Your task to perform on an android device: turn on notifications settings in the gmail app Image 0: 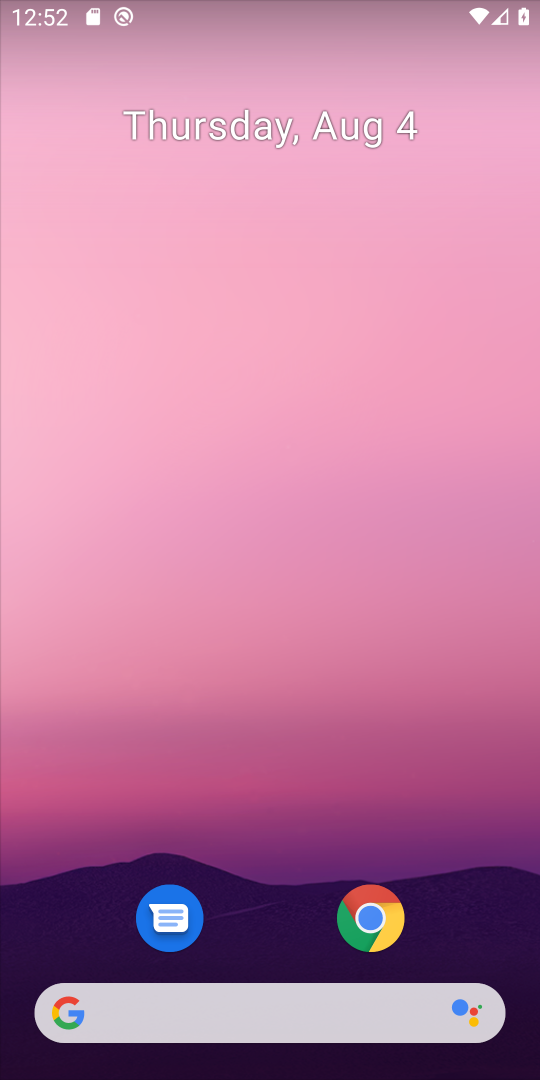
Step 0: drag from (289, 789) to (307, 304)
Your task to perform on an android device: turn on notifications settings in the gmail app Image 1: 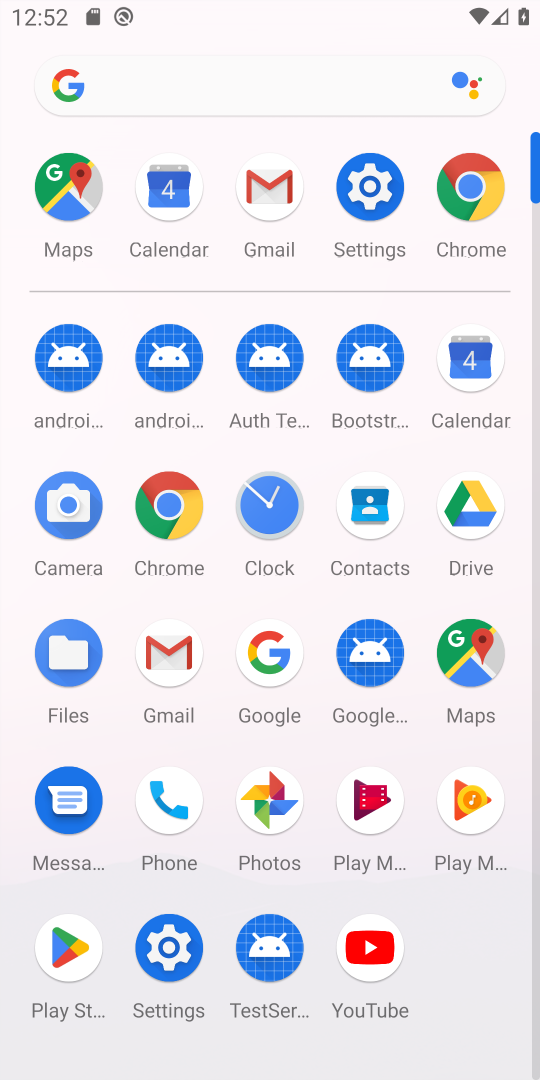
Step 1: click (295, 213)
Your task to perform on an android device: turn on notifications settings in the gmail app Image 2: 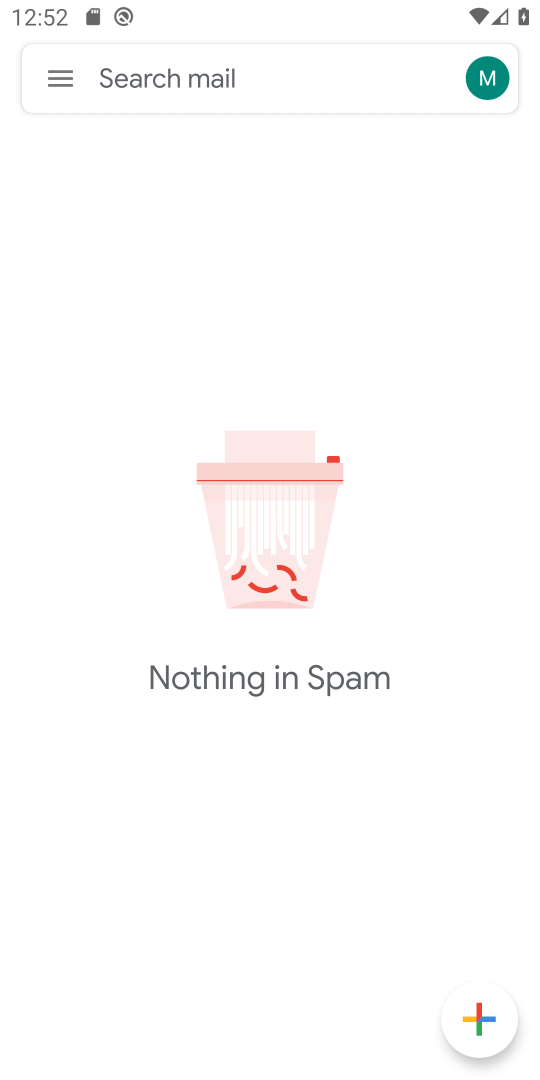
Step 2: click (67, 62)
Your task to perform on an android device: turn on notifications settings in the gmail app Image 3: 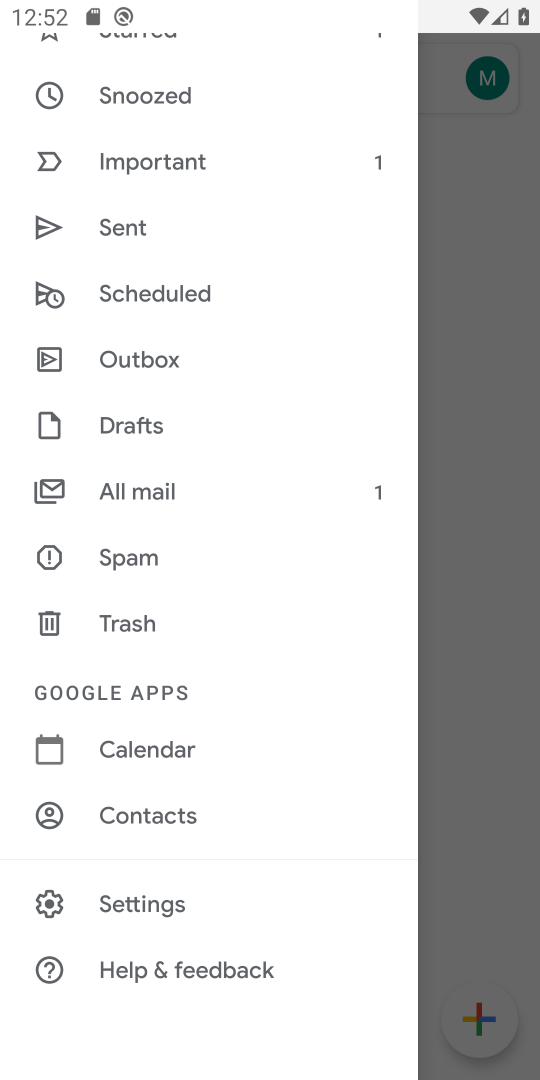
Step 3: click (139, 881)
Your task to perform on an android device: turn on notifications settings in the gmail app Image 4: 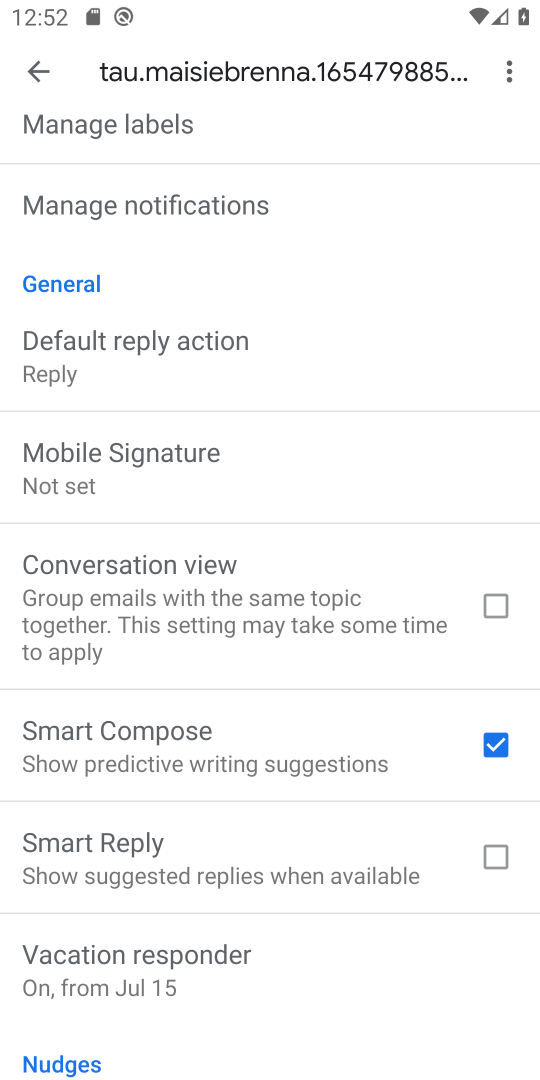
Step 4: click (195, 223)
Your task to perform on an android device: turn on notifications settings in the gmail app Image 5: 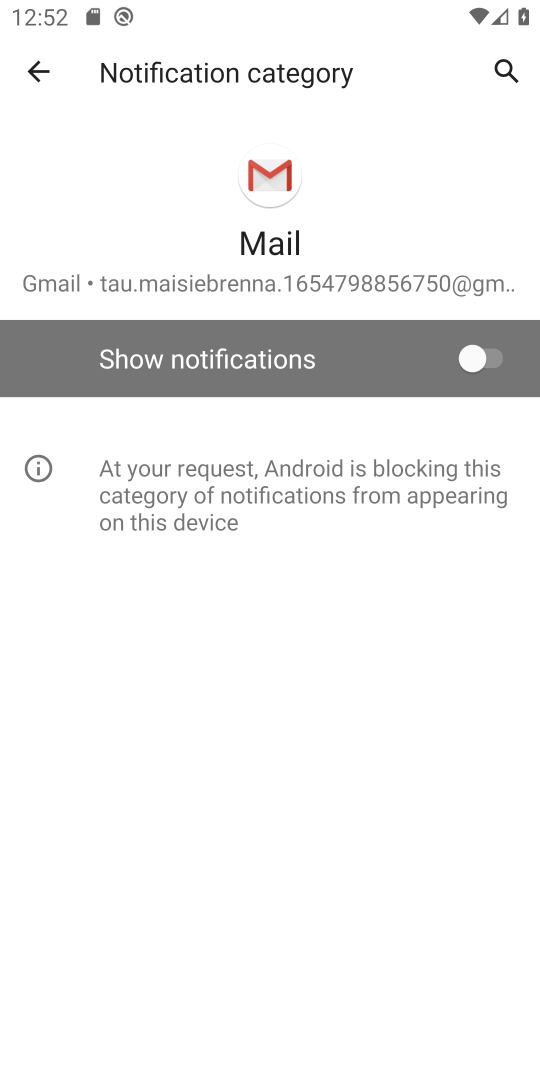
Step 5: click (485, 350)
Your task to perform on an android device: turn on notifications settings in the gmail app Image 6: 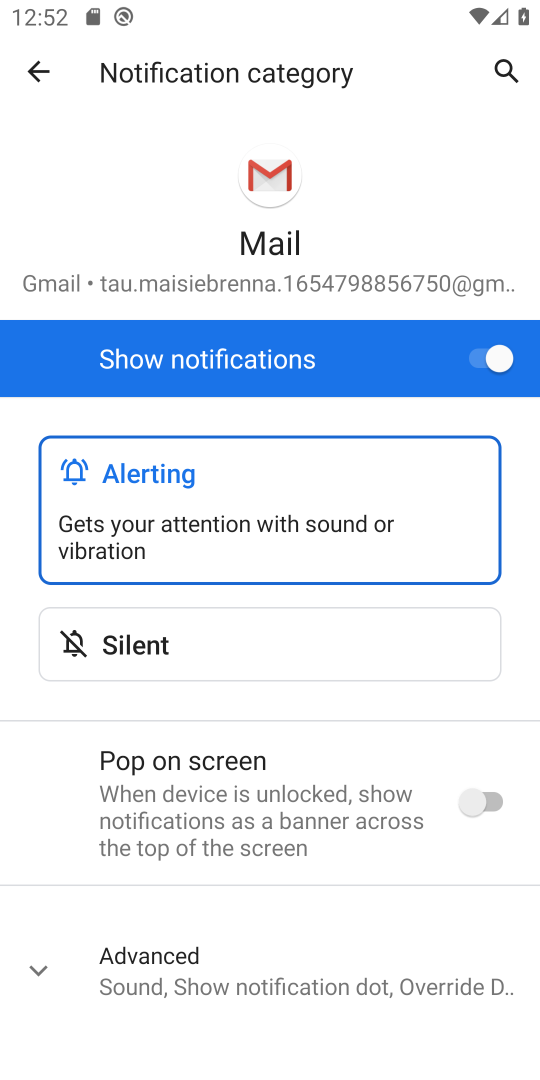
Step 6: task complete